Your task to perform on an android device: change your default location settings in chrome Image 0: 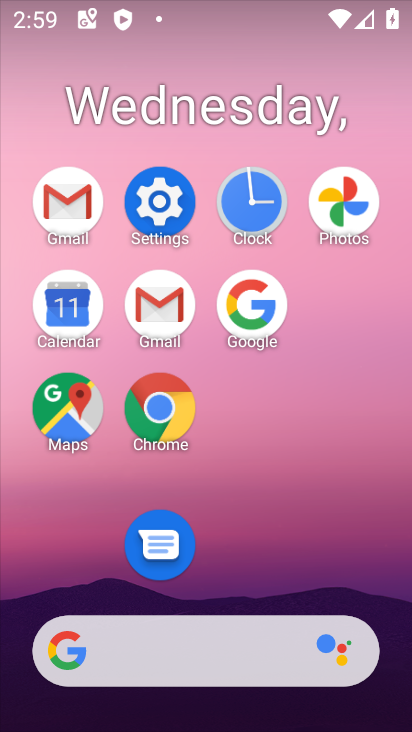
Step 0: click (184, 419)
Your task to perform on an android device: change your default location settings in chrome Image 1: 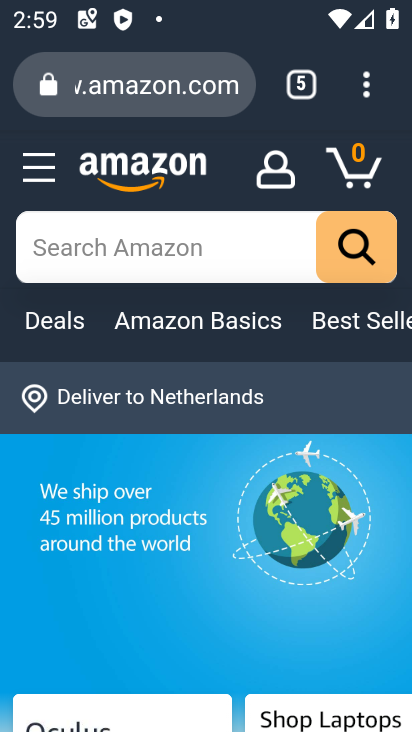
Step 1: click (377, 73)
Your task to perform on an android device: change your default location settings in chrome Image 2: 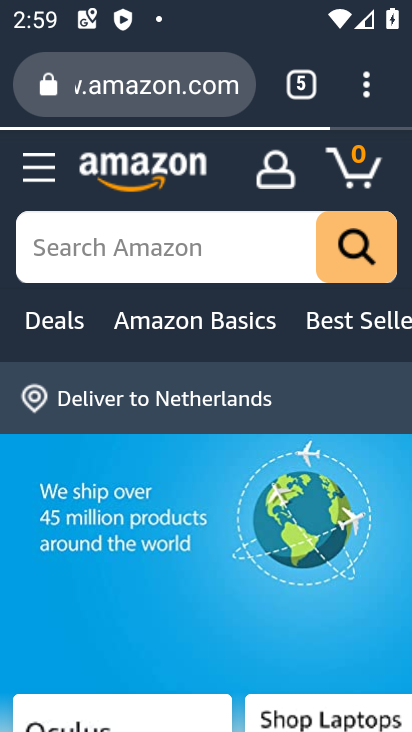
Step 2: click (377, 75)
Your task to perform on an android device: change your default location settings in chrome Image 3: 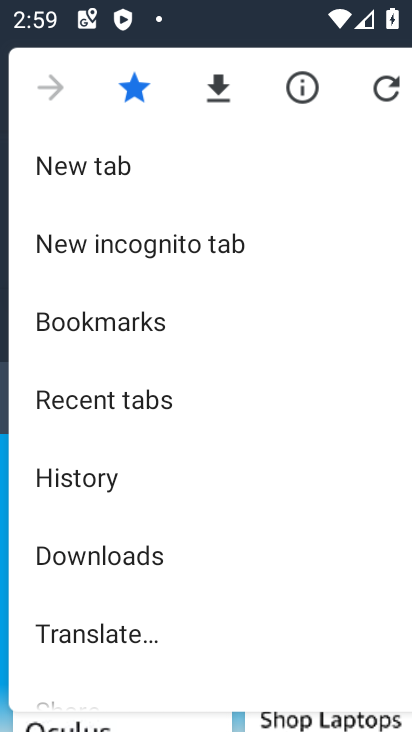
Step 3: drag from (192, 529) to (198, 94)
Your task to perform on an android device: change your default location settings in chrome Image 4: 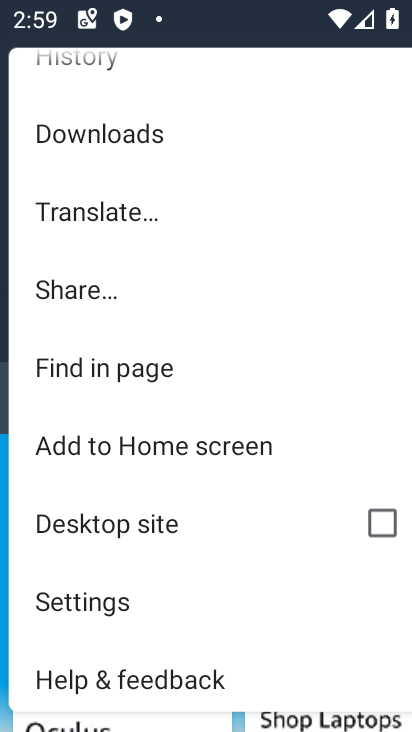
Step 4: click (181, 588)
Your task to perform on an android device: change your default location settings in chrome Image 5: 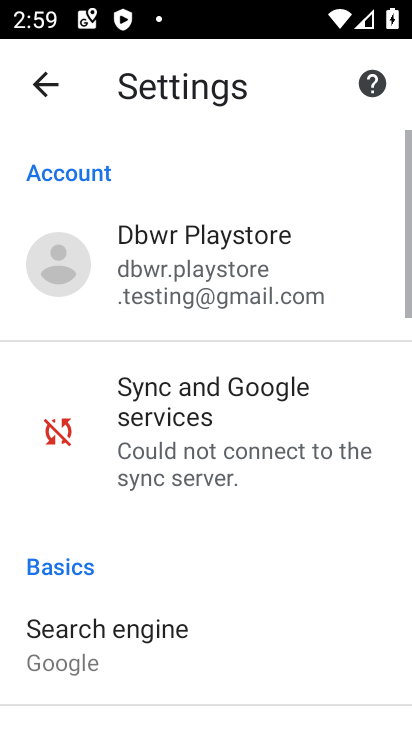
Step 5: drag from (181, 588) to (220, 146)
Your task to perform on an android device: change your default location settings in chrome Image 6: 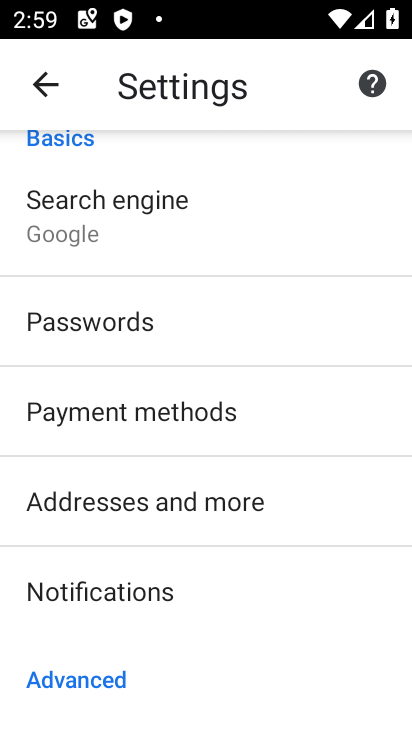
Step 6: drag from (170, 524) to (197, 155)
Your task to perform on an android device: change your default location settings in chrome Image 7: 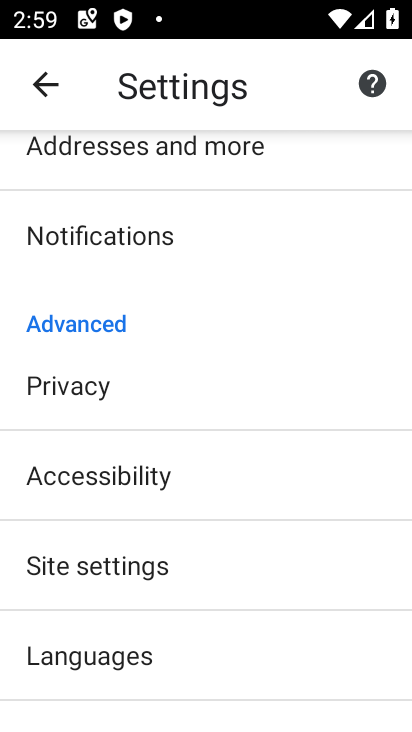
Step 7: click (161, 553)
Your task to perform on an android device: change your default location settings in chrome Image 8: 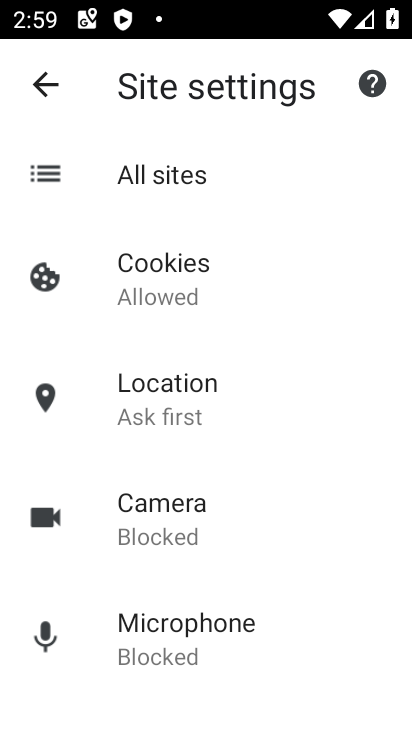
Step 8: click (176, 403)
Your task to perform on an android device: change your default location settings in chrome Image 9: 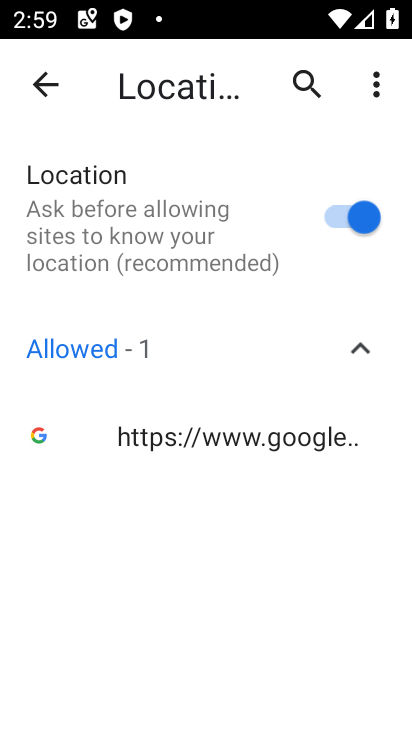
Step 9: click (352, 211)
Your task to perform on an android device: change your default location settings in chrome Image 10: 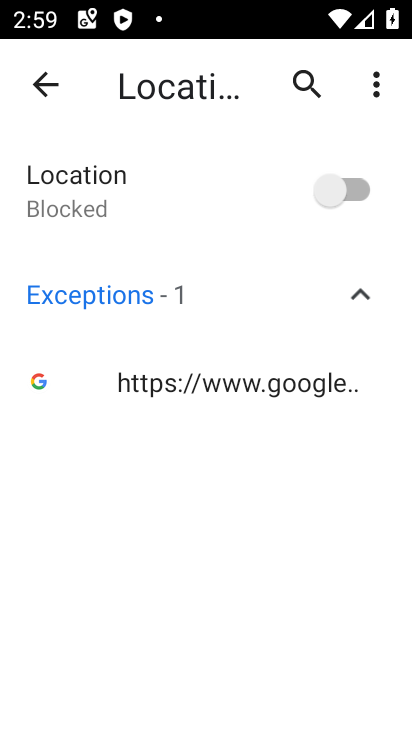
Step 10: task complete